Your task to perform on an android device: Show me popular games on the Play Store Image 0: 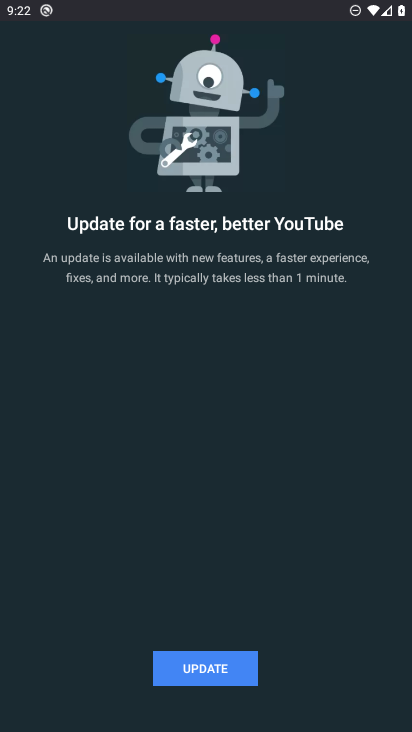
Step 0: press home button
Your task to perform on an android device: Show me popular games on the Play Store Image 1: 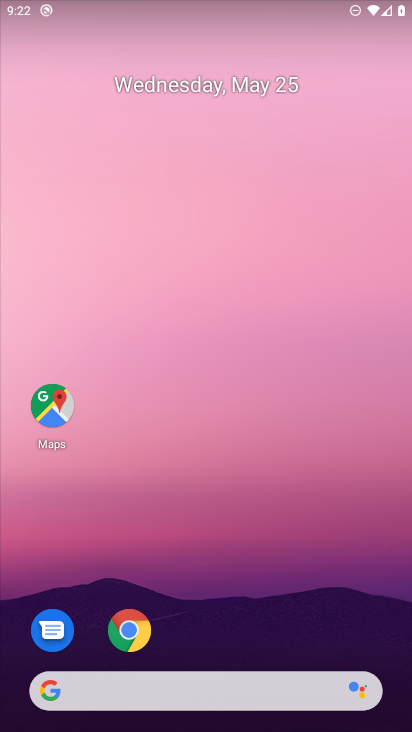
Step 1: drag from (183, 673) to (204, 205)
Your task to perform on an android device: Show me popular games on the Play Store Image 2: 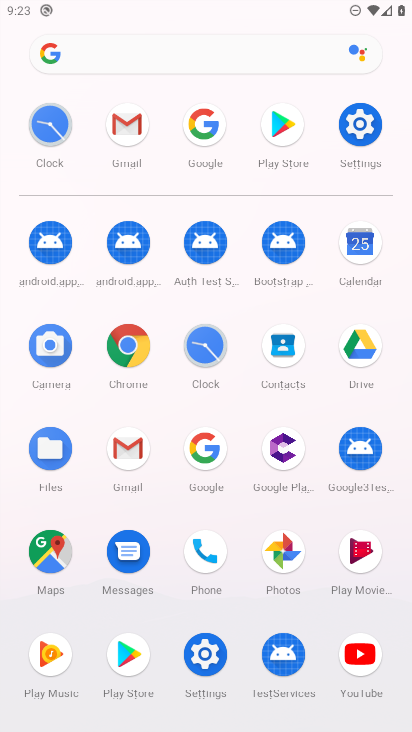
Step 2: click (120, 664)
Your task to perform on an android device: Show me popular games on the Play Store Image 3: 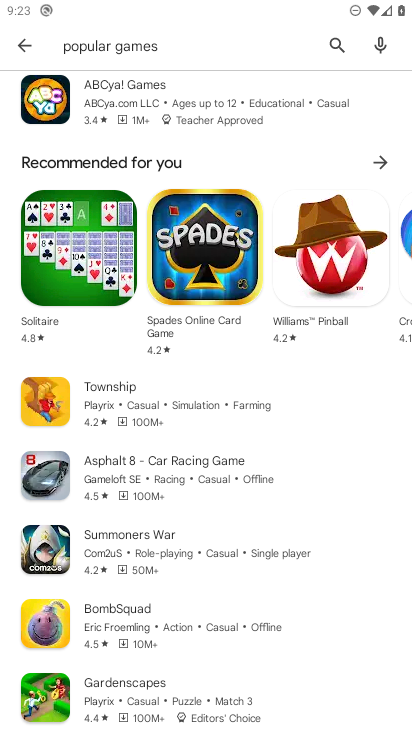
Step 3: task complete